Your task to perform on an android device: read, delete, or share a saved page in the chrome app Image 0: 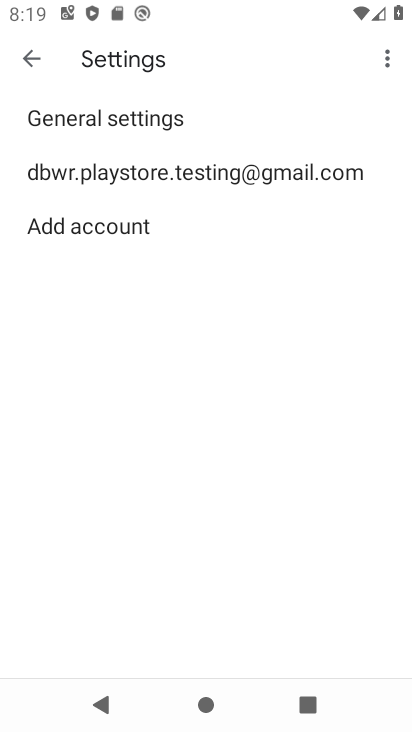
Step 0: press home button
Your task to perform on an android device: read, delete, or share a saved page in the chrome app Image 1: 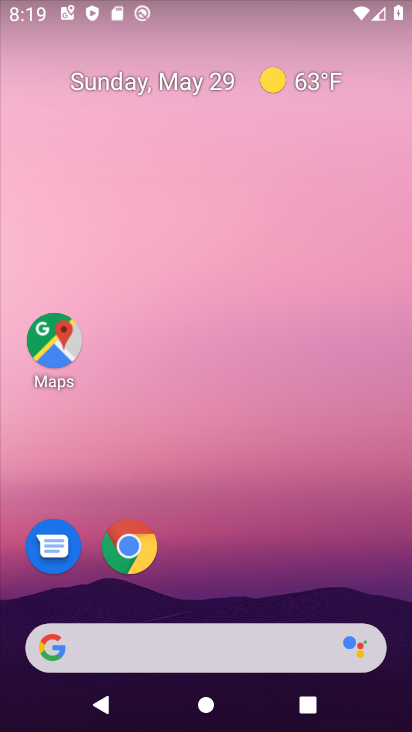
Step 1: click (132, 558)
Your task to perform on an android device: read, delete, or share a saved page in the chrome app Image 2: 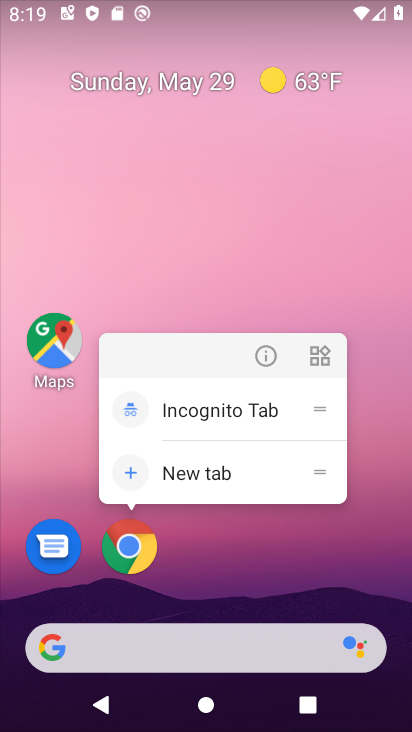
Step 2: click (141, 554)
Your task to perform on an android device: read, delete, or share a saved page in the chrome app Image 3: 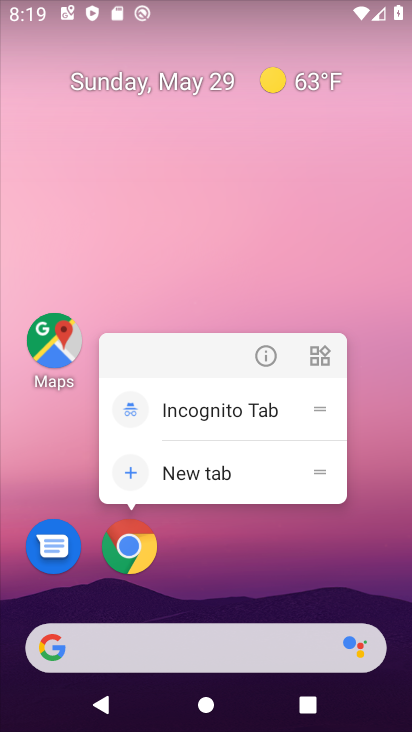
Step 3: click (128, 549)
Your task to perform on an android device: read, delete, or share a saved page in the chrome app Image 4: 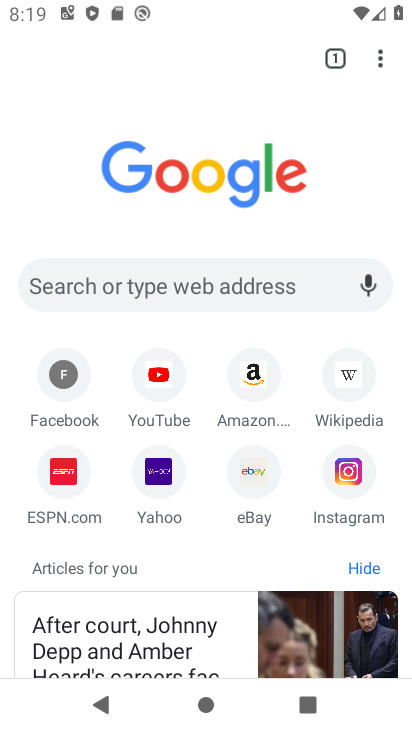
Step 4: drag from (376, 67) to (203, 391)
Your task to perform on an android device: read, delete, or share a saved page in the chrome app Image 5: 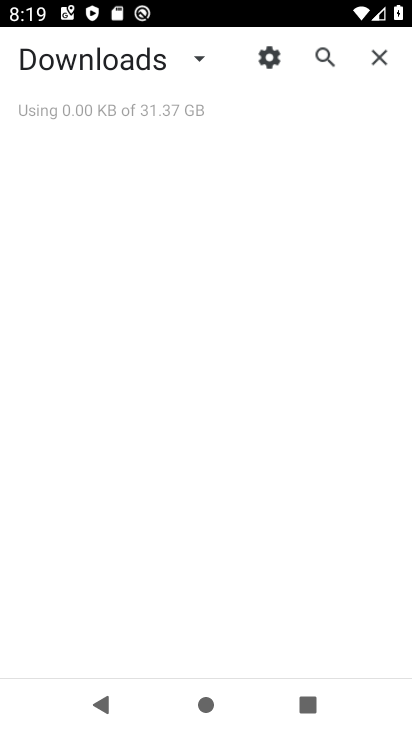
Step 5: click (184, 53)
Your task to perform on an android device: read, delete, or share a saved page in the chrome app Image 6: 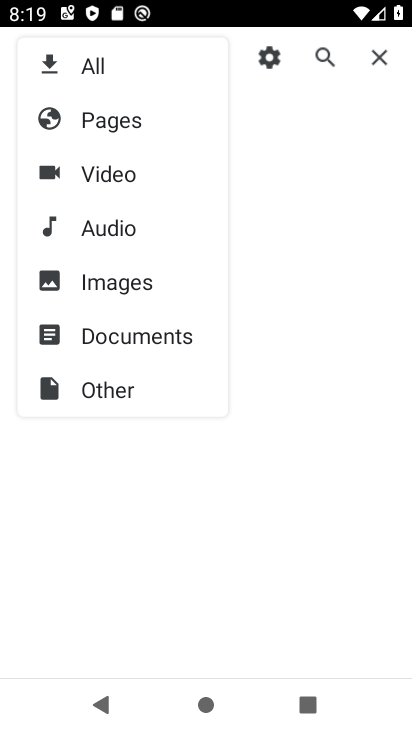
Step 6: click (109, 118)
Your task to perform on an android device: read, delete, or share a saved page in the chrome app Image 7: 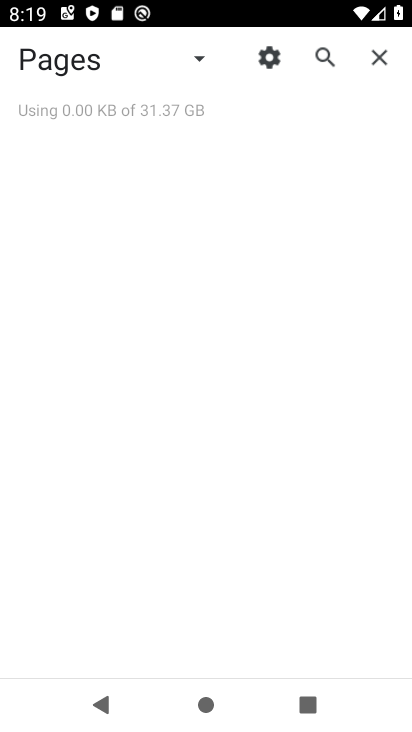
Step 7: task complete